Your task to perform on an android device: add a contact in the contacts app Image 0: 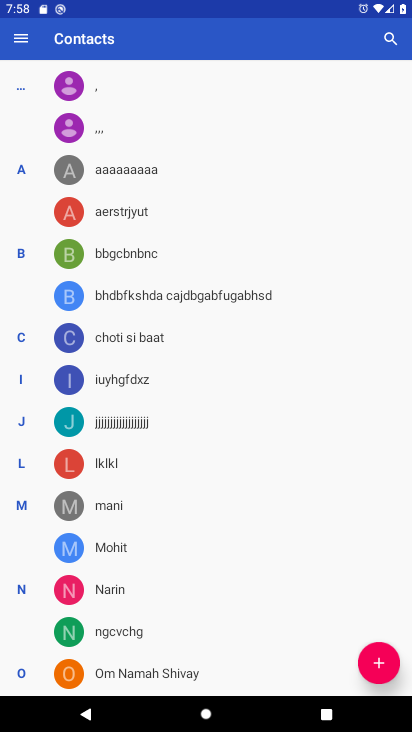
Step 0: click (382, 673)
Your task to perform on an android device: add a contact in the contacts app Image 1: 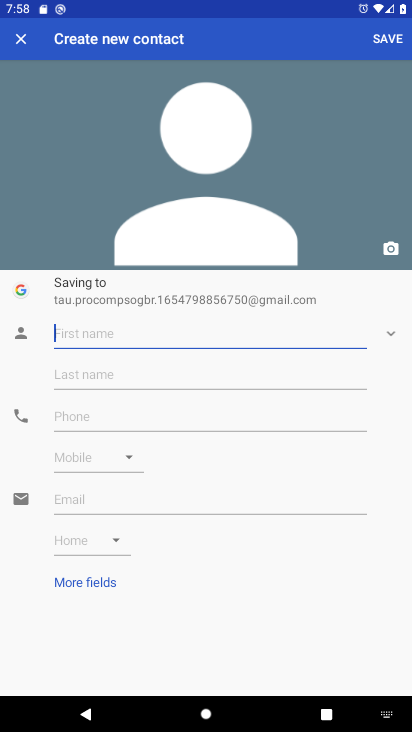
Step 1: click (137, 328)
Your task to perform on an android device: add a contact in the contacts app Image 2: 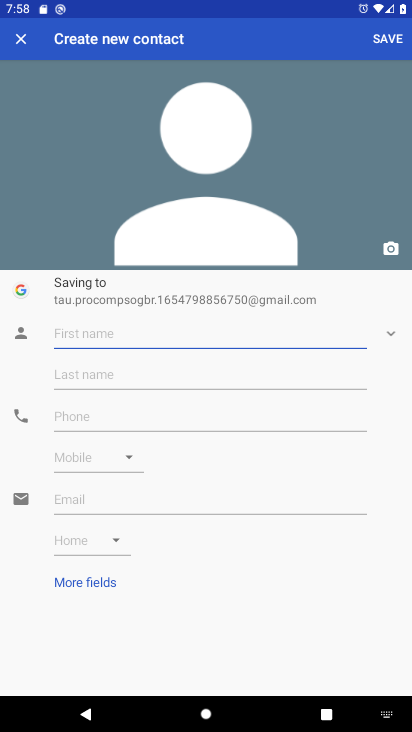
Step 2: type "sarokkkkkkkk "
Your task to perform on an android device: add a contact in the contacts app Image 3: 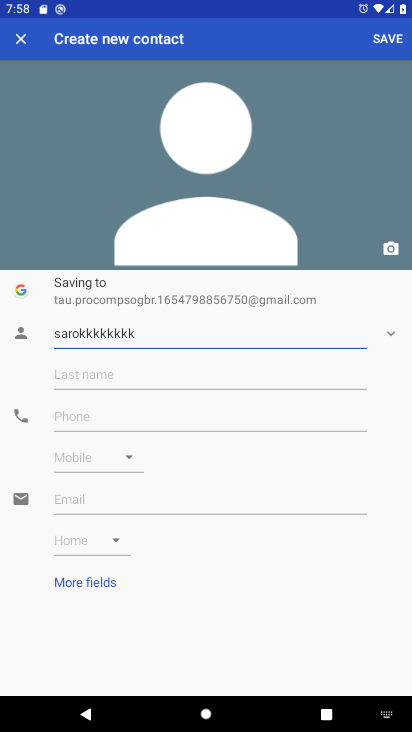
Step 3: click (116, 404)
Your task to perform on an android device: add a contact in the contacts app Image 4: 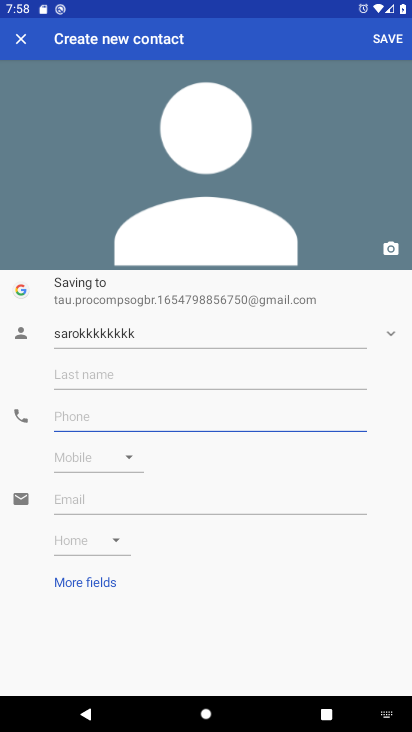
Step 4: type "878787787887878787878787878787878 "
Your task to perform on an android device: add a contact in the contacts app Image 5: 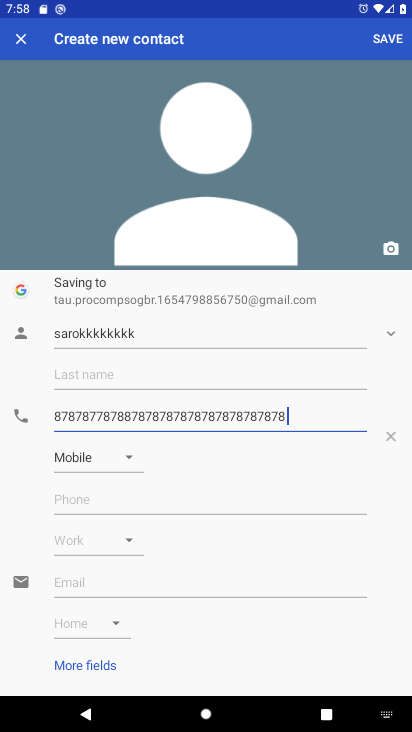
Step 5: click (372, 34)
Your task to perform on an android device: add a contact in the contacts app Image 6: 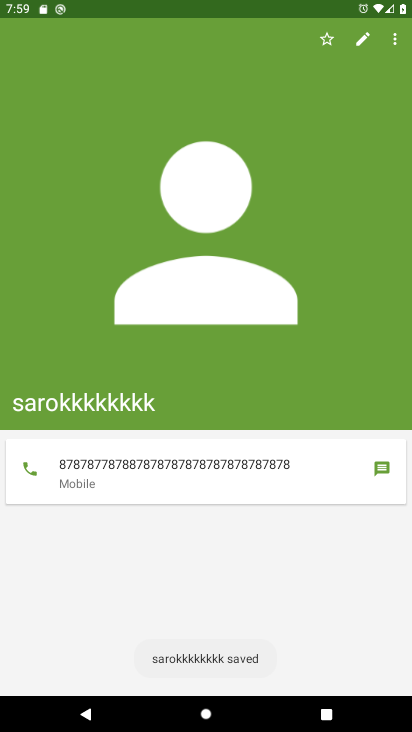
Step 6: task complete